Your task to perform on an android device: Open the phone app and click the voicemail tab. Image 0: 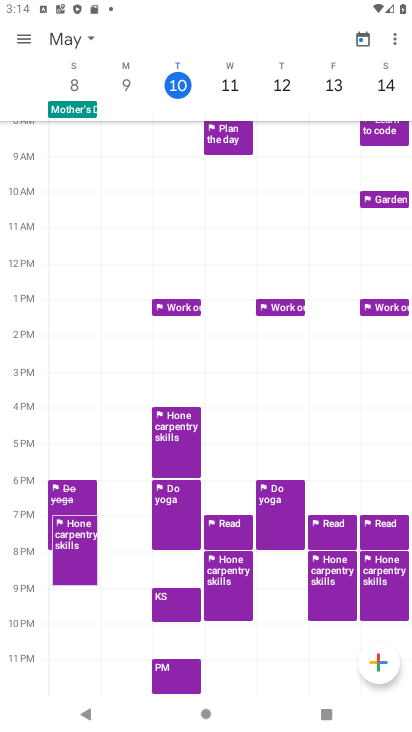
Step 0: press home button
Your task to perform on an android device: Open the phone app and click the voicemail tab. Image 1: 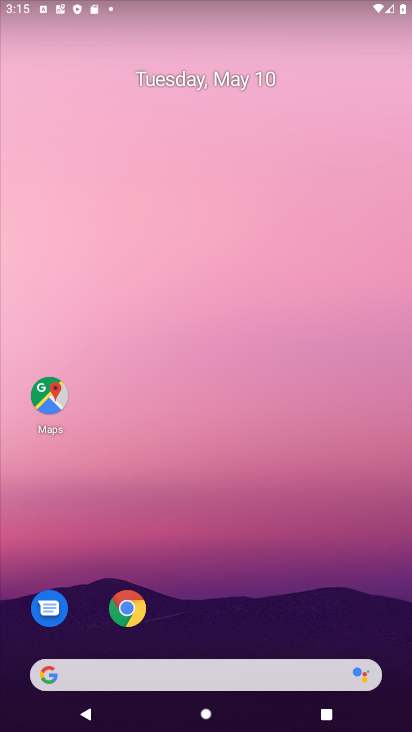
Step 1: drag from (366, 625) to (340, 103)
Your task to perform on an android device: Open the phone app and click the voicemail tab. Image 2: 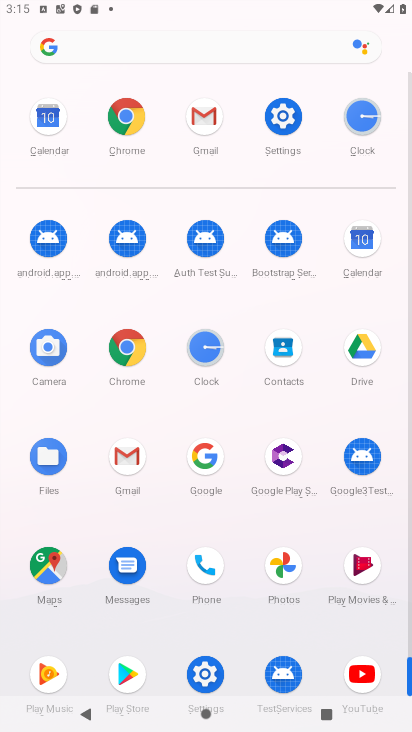
Step 2: click (205, 560)
Your task to perform on an android device: Open the phone app and click the voicemail tab. Image 3: 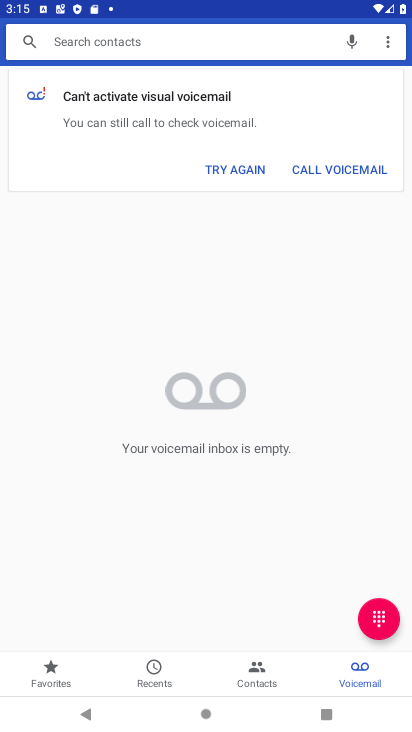
Step 3: click (359, 673)
Your task to perform on an android device: Open the phone app and click the voicemail tab. Image 4: 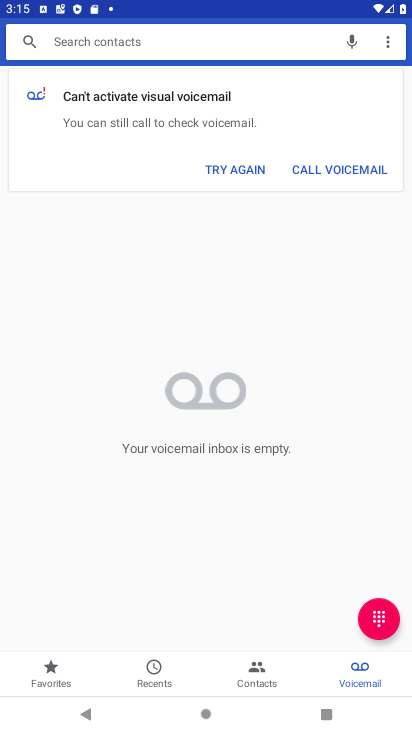
Step 4: task complete